Your task to perform on an android device: Go to battery settings Image 0: 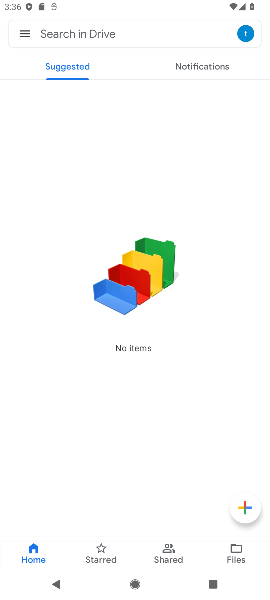
Step 0: press home button
Your task to perform on an android device: Go to battery settings Image 1: 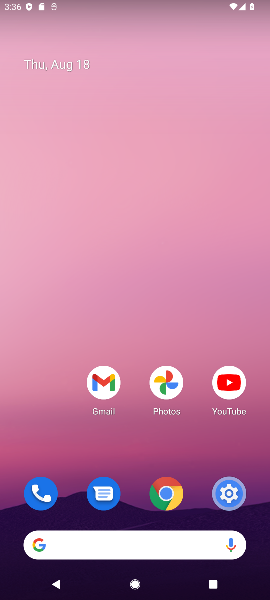
Step 1: drag from (206, 462) to (183, 39)
Your task to perform on an android device: Go to battery settings Image 2: 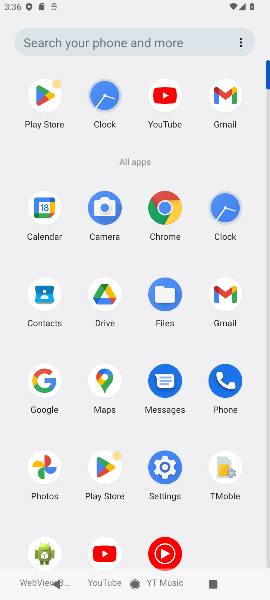
Step 2: click (165, 464)
Your task to perform on an android device: Go to battery settings Image 3: 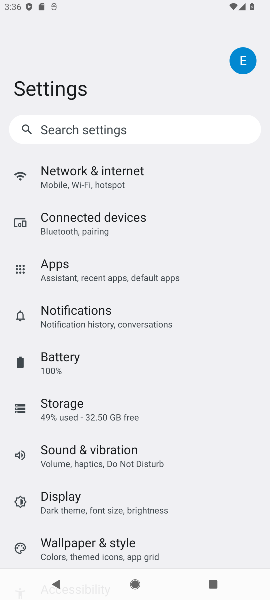
Step 3: click (72, 357)
Your task to perform on an android device: Go to battery settings Image 4: 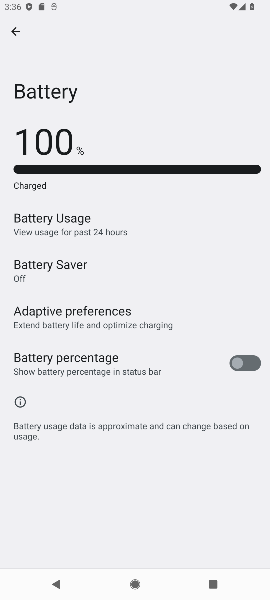
Step 4: task complete